Your task to perform on an android device: What's the weather going to be this weekend? Image 0: 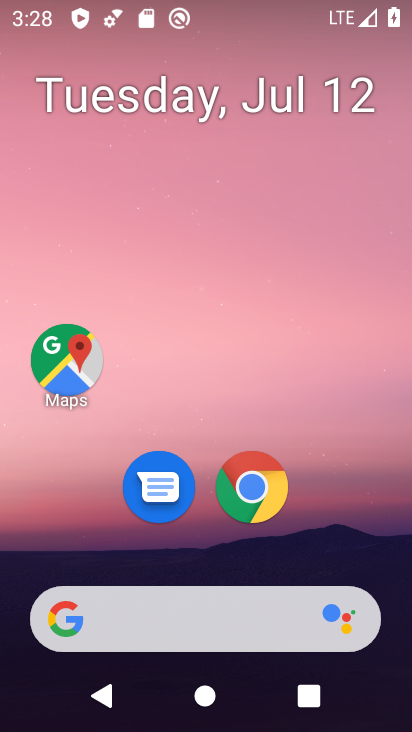
Step 0: drag from (249, 607) to (318, 54)
Your task to perform on an android device: What's the weather going to be this weekend? Image 1: 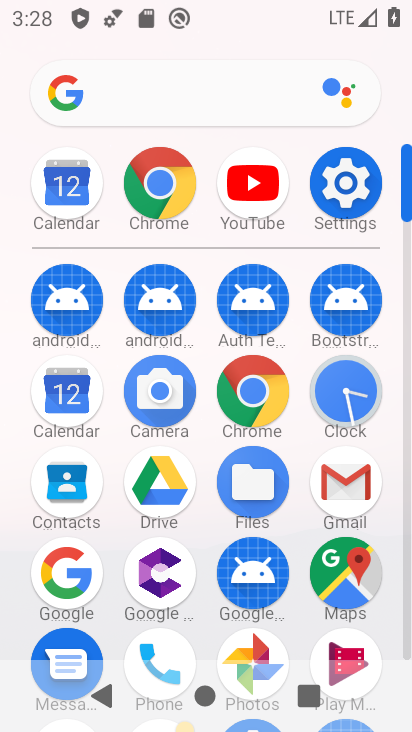
Step 1: click (64, 570)
Your task to perform on an android device: What's the weather going to be this weekend? Image 2: 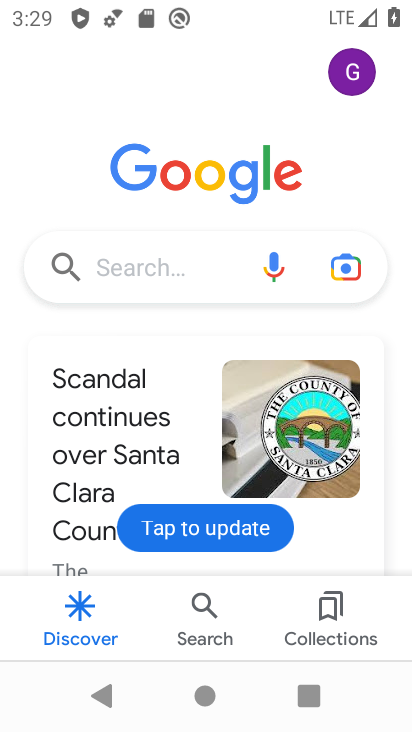
Step 2: click (185, 270)
Your task to perform on an android device: What's the weather going to be this weekend? Image 3: 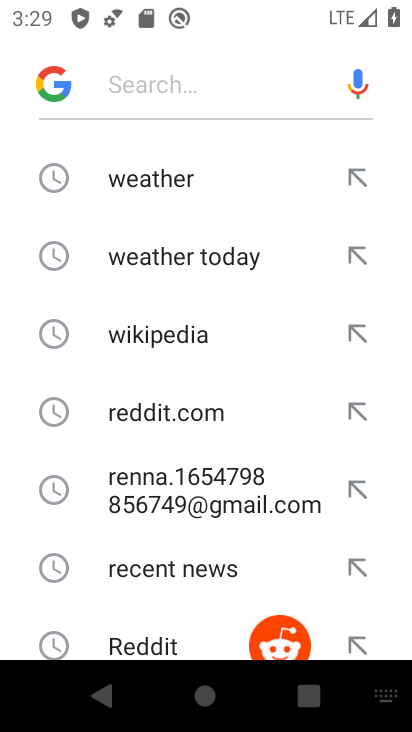
Step 3: click (171, 199)
Your task to perform on an android device: What's the weather going to be this weekend? Image 4: 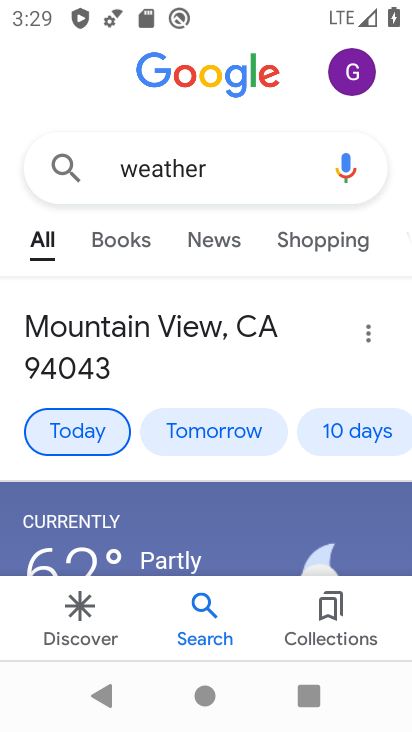
Step 4: click (343, 434)
Your task to perform on an android device: What's the weather going to be this weekend? Image 5: 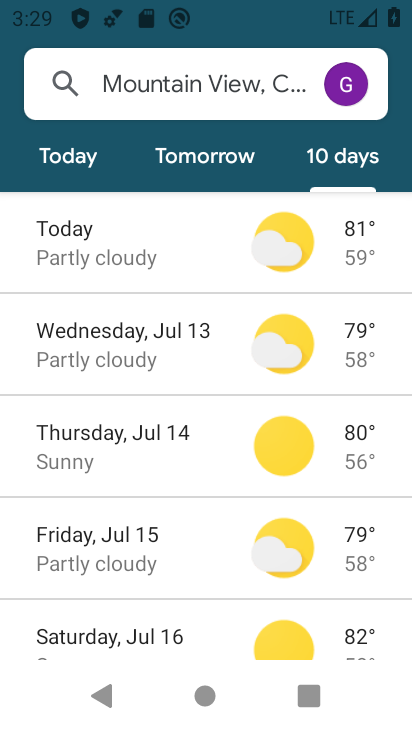
Step 5: task complete